Your task to perform on an android device: Search for razer blade on walmart.com, select the first entry, and add it to the cart. Image 0: 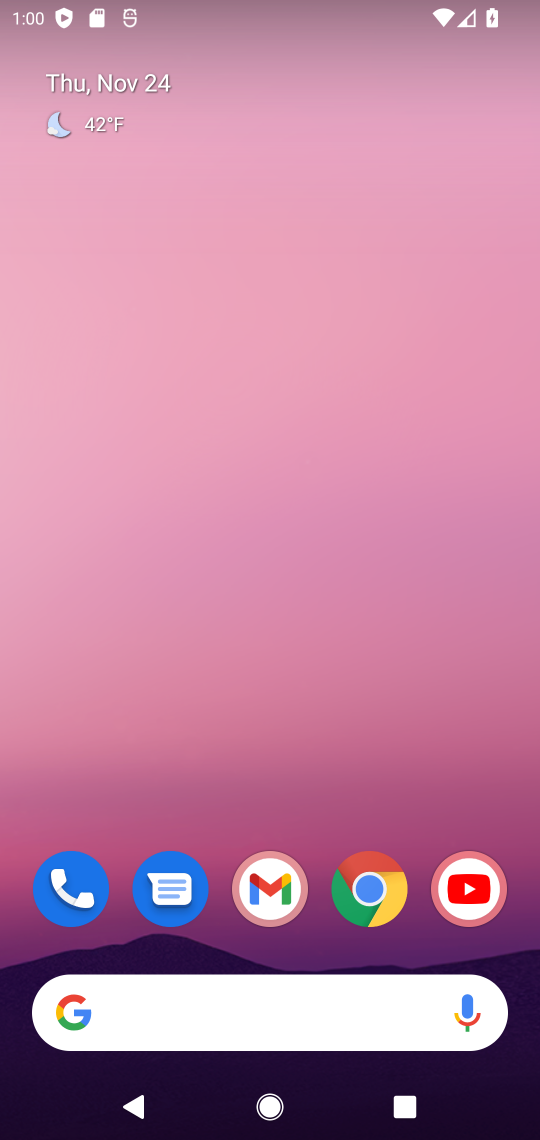
Step 0: click (381, 898)
Your task to perform on an android device: Search for razer blade on walmart.com, select the first entry, and add it to the cart. Image 1: 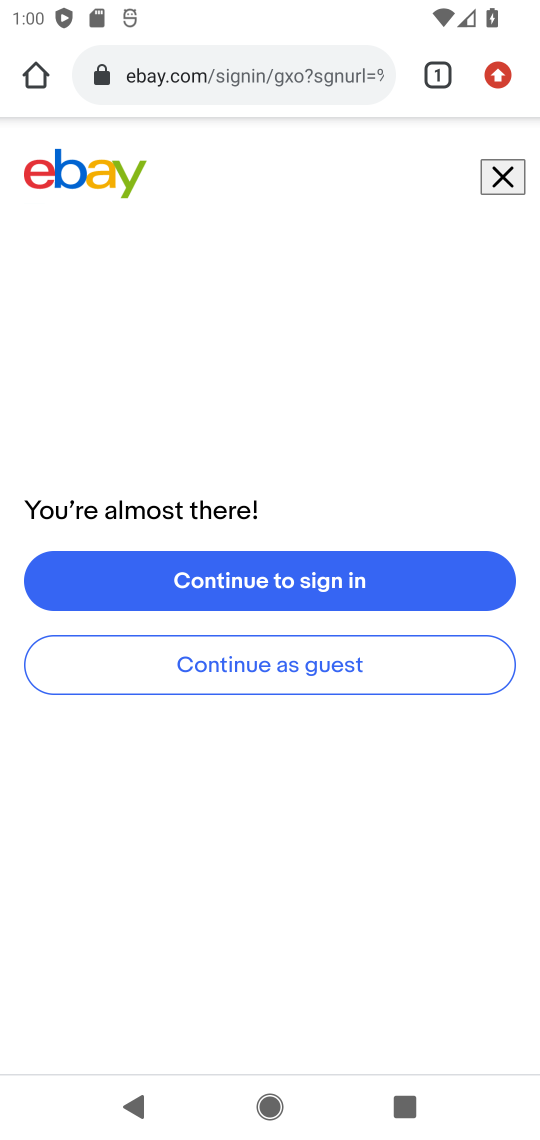
Step 1: click (255, 64)
Your task to perform on an android device: Search for razer blade on walmart.com, select the first entry, and add it to the cart. Image 2: 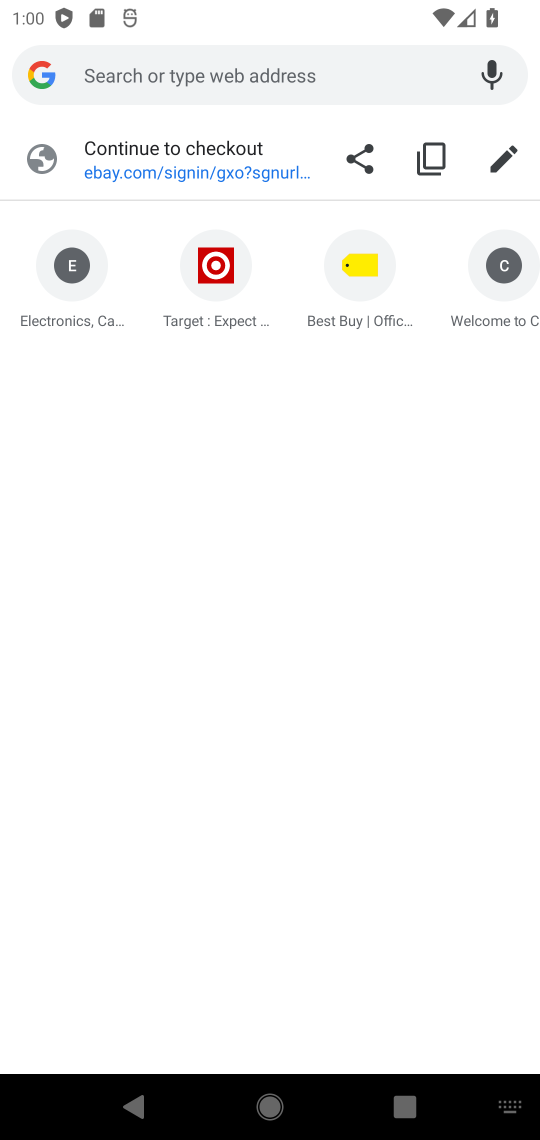
Step 2: type "walmart.com"
Your task to perform on an android device: Search for razer blade on walmart.com, select the first entry, and add it to the cart. Image 3: 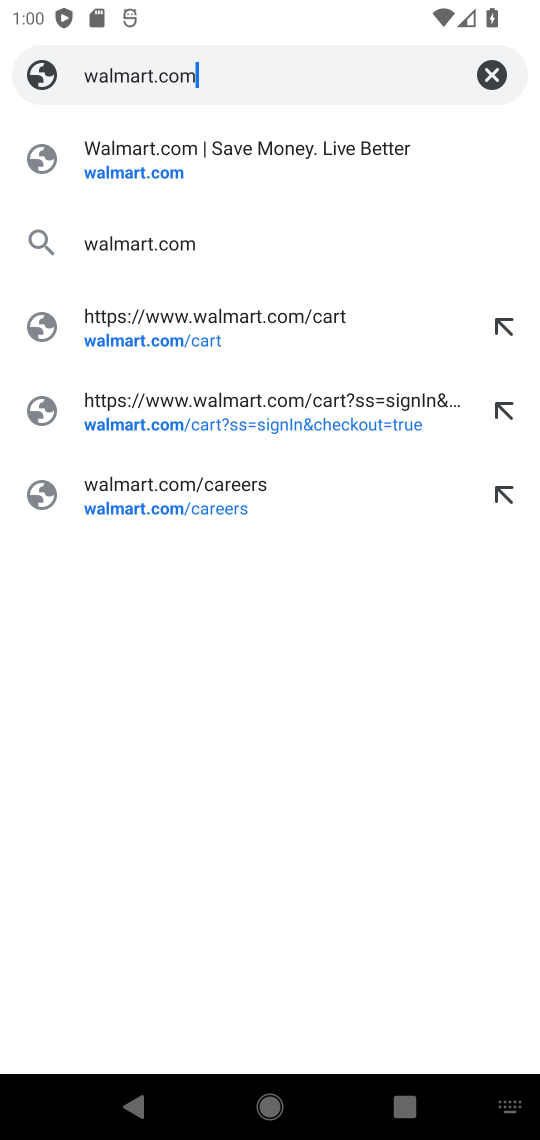
Step 3: click (117, 172)
Your task to perform on an android device: Search for razer blade on walmart.com, select the first entry, and add it to the cart. Image 4: 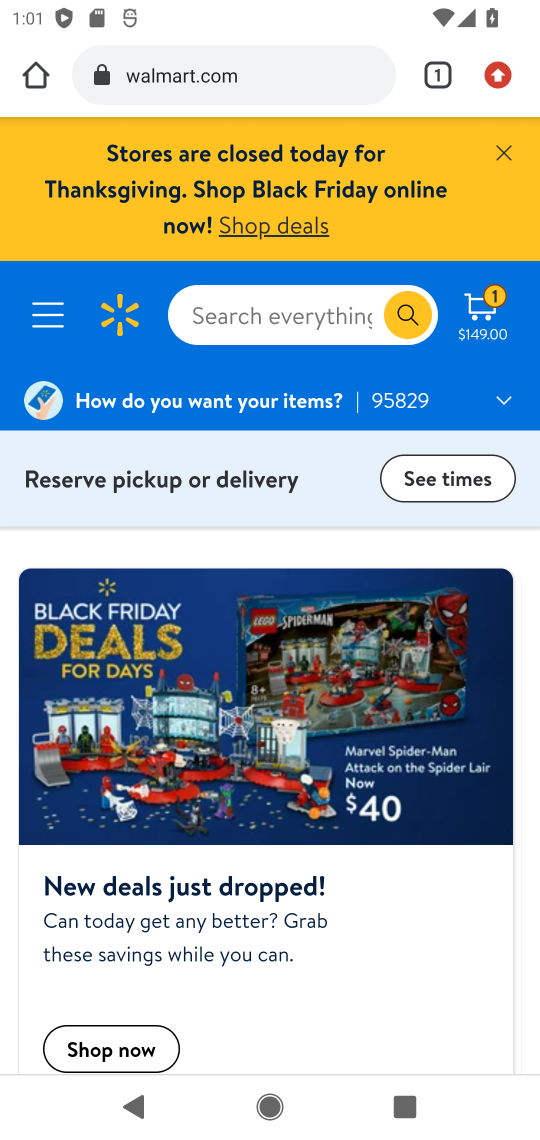
Step 4: click (232, 310)
Your task to perform on an android device: Search for razer blade on walmart.com, select the first entry, and add it to the cart. Image 5: 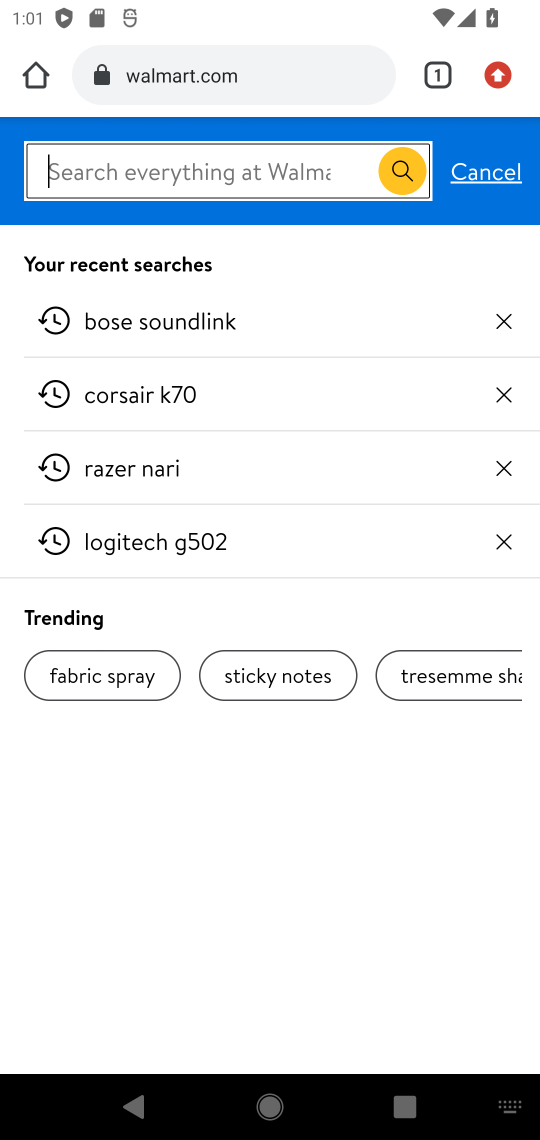
Step 5: type "razer blade"
Your task to perform on an android device: Search for razer blade on walmart.com, select the first entry, and add it to the cart. Image 6: 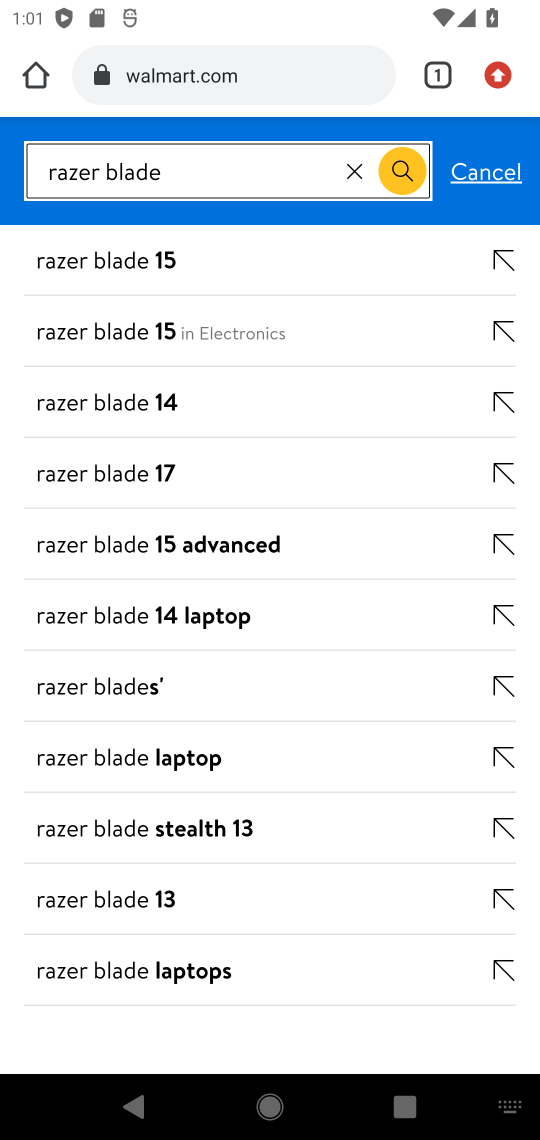
Step 6: click (72, 266)
Your task to perform on an android device: Search for razer blade on walmart.com, select the first entry, and add it to the cart. Image 7: 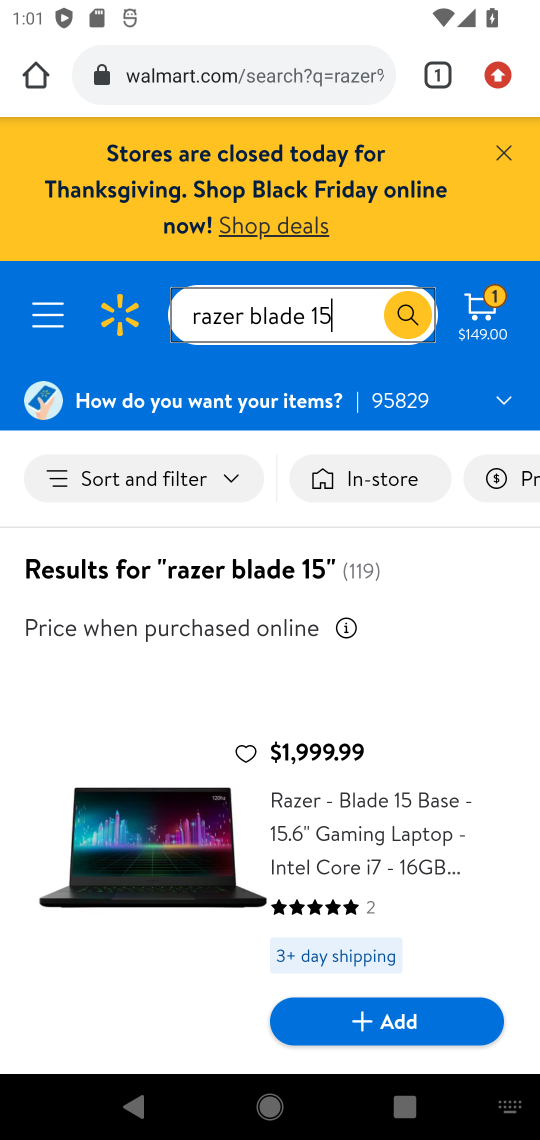
Step 7: drag from (191, 796) to (191, 630)
Your task to perform on an android device: Search for razer blade on walmart.com, select the first entry, and add it to the cart. Image 8: 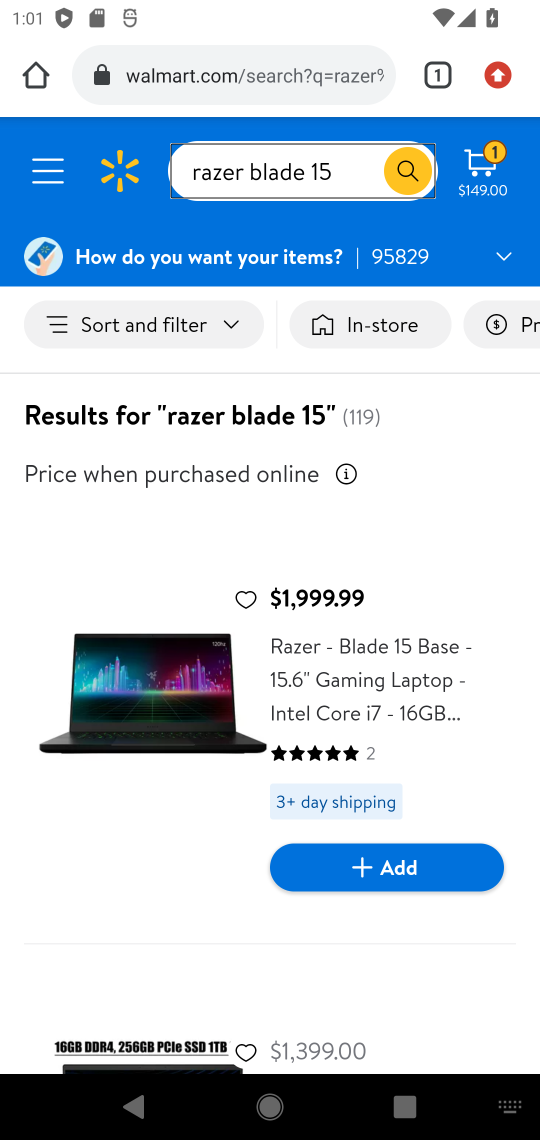
Step 8: click (393, 867)
Your task to perform on an android device: Search for razer blade on walmart.com, select the first entry, and add it to the cart. Image 9: 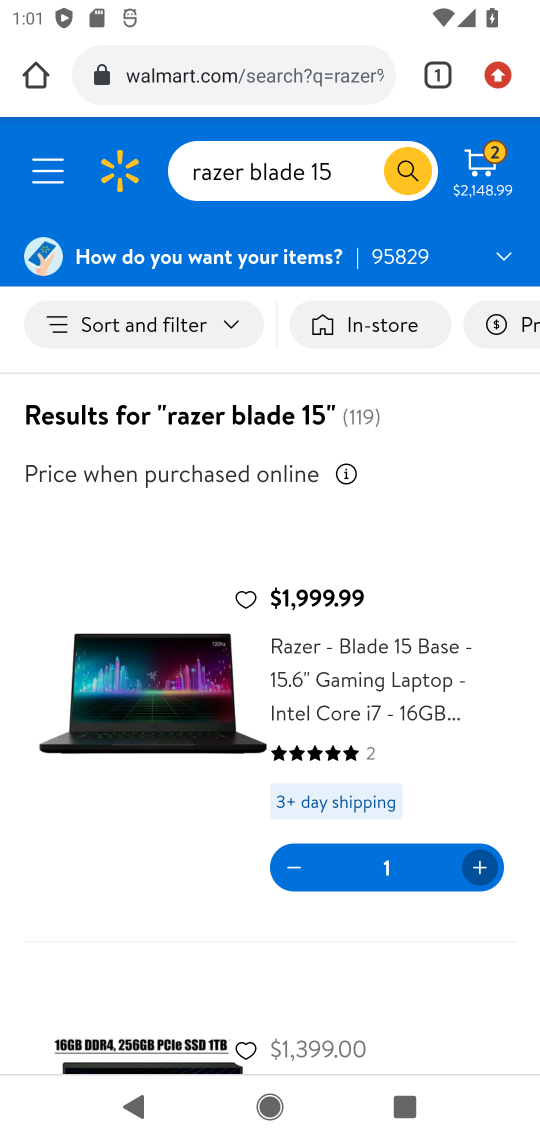
Step 9: task complete